Your task to perform on an android device: open app "PlayWell" (install if not already installed) and go to login screen Image 0: 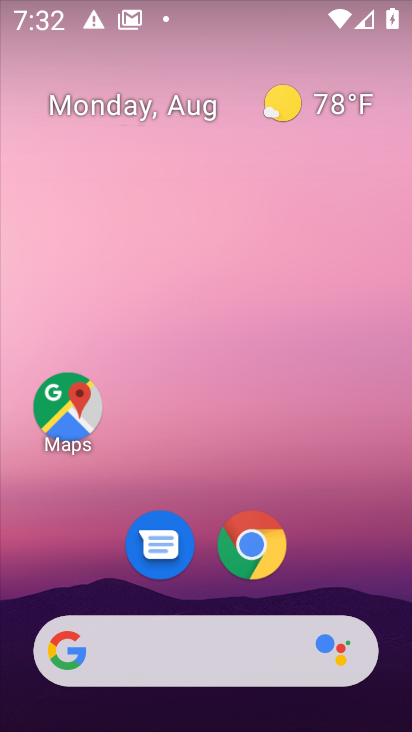
Step 0: drag from (363, 559) to (374, 149)
Your task to perform on an android device: open app "PlayWell" (install if not already installed) and go to login screen Image 1: 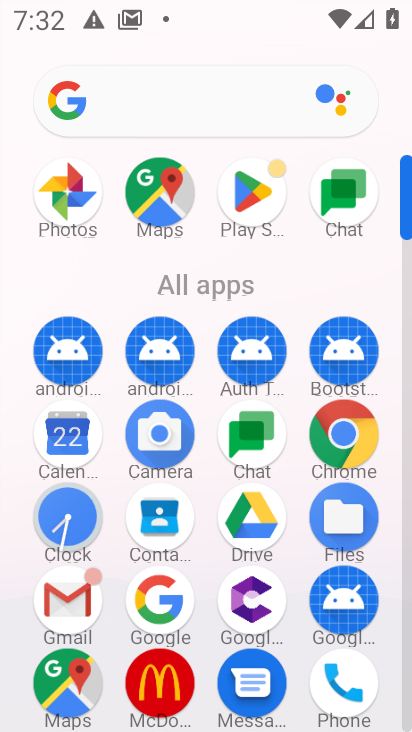
Step 1: click (261, 195)
Your task to perform on an android device: open app "PlayWell" (install if not already installed) and go to login screen Image 2: 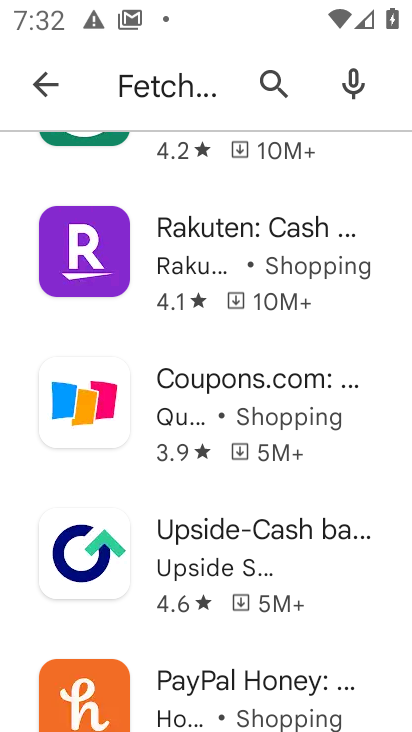
Step 2: press back button
Your task to perform on an android device: open app "PlayWell" (install if not already installed) and go to login screen Image 3: 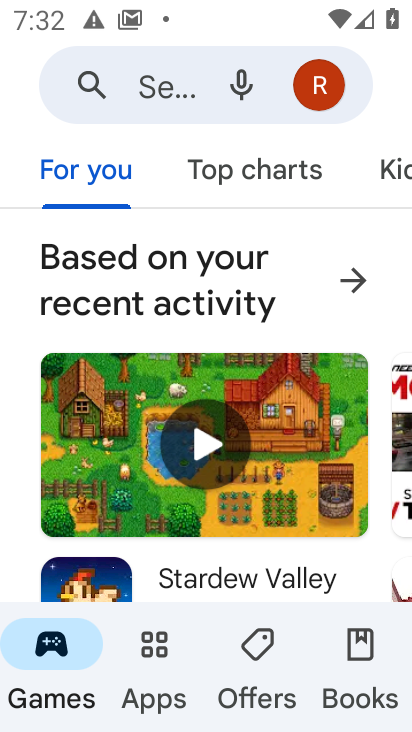
Step 3: click (156, 83)
Your task to perform on an android device: open app "PlayWell" (install if not already installed) and go to login screen Image 4: 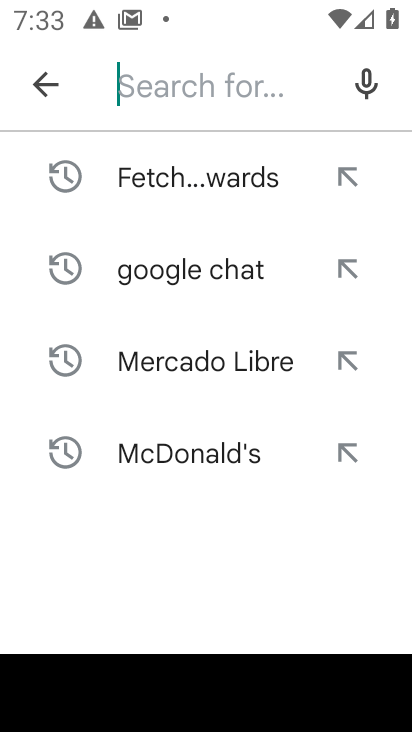
Step 4: type "play well"
Your task to perform on an android device: open app "PlayWell" (install if not already installed) and go to login screen Image 5: 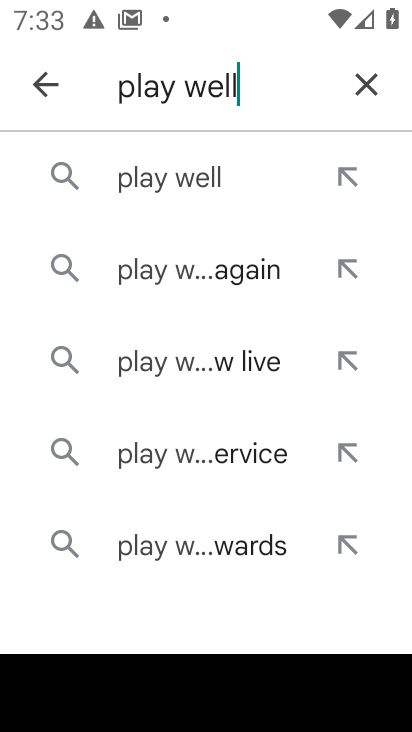
Step 5: click (205, 185)
Your task to perform on an android device: open app "PlayWell" (install if not already installed) and go to login screen Image 6: 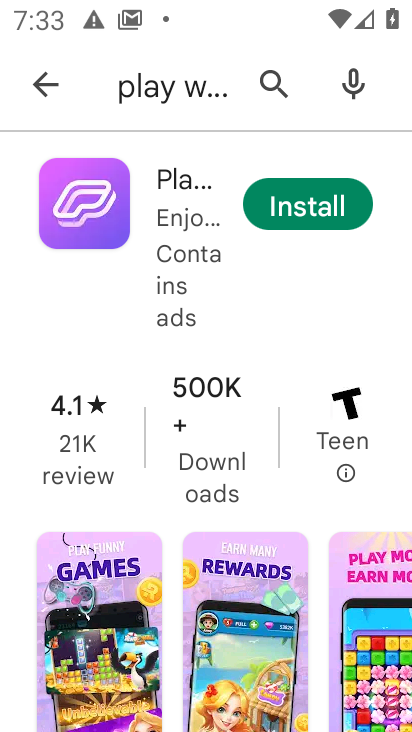
Step 6: click (314, 211)
Your task to perform on an android device: open app "PlayWell" (install if not already installed) and go to login screen Image 7: 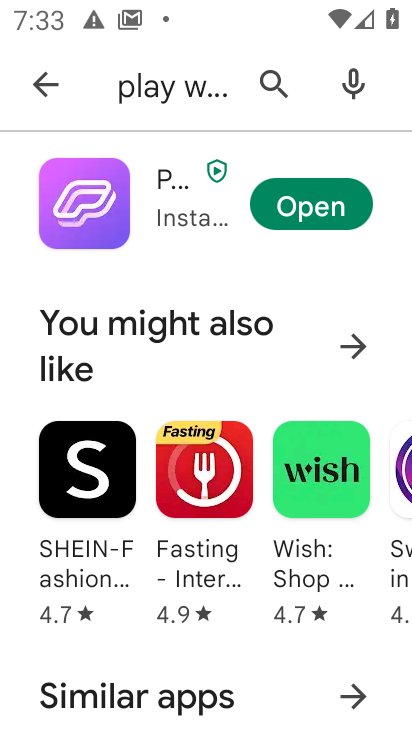
Step 7: click (329, 205)
Your task to perform on an android device: open app "PlayWell" (install if not already installed) and go to login screen Image 8: 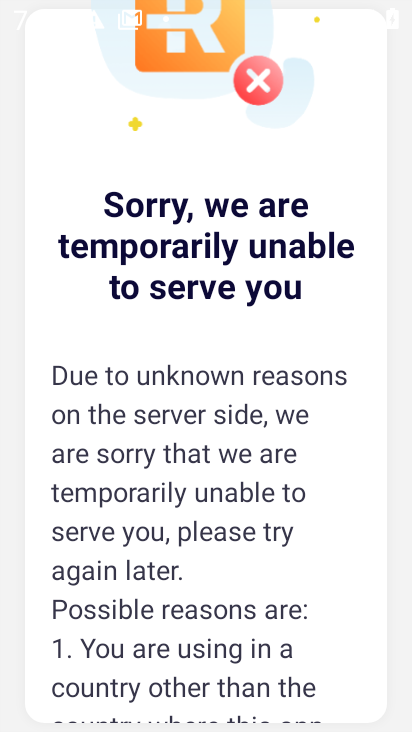
Step 8: task complete